Your task to perform on an android device: Open the web browser Image 0: 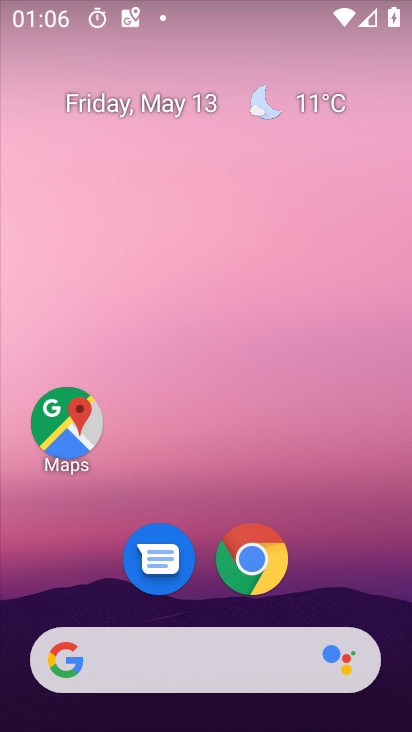
Step 0: drag from (352, 558) to (354, 103)
Your task to perform on an android device: Open the web browser Image 1: 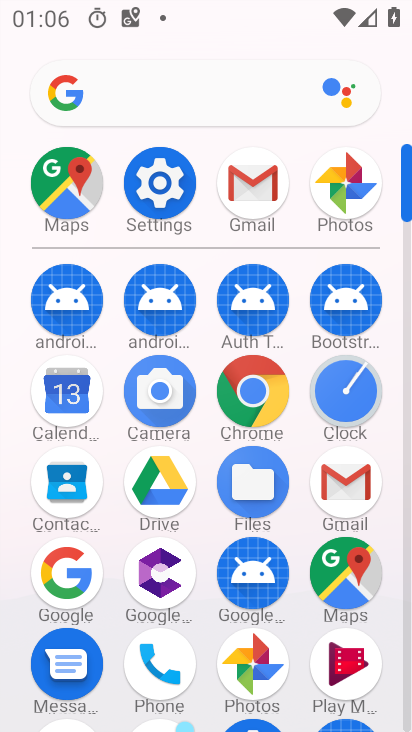
Step 1: click (78, 564)
Your task to perform on an android device: Open the web browser Image 2: 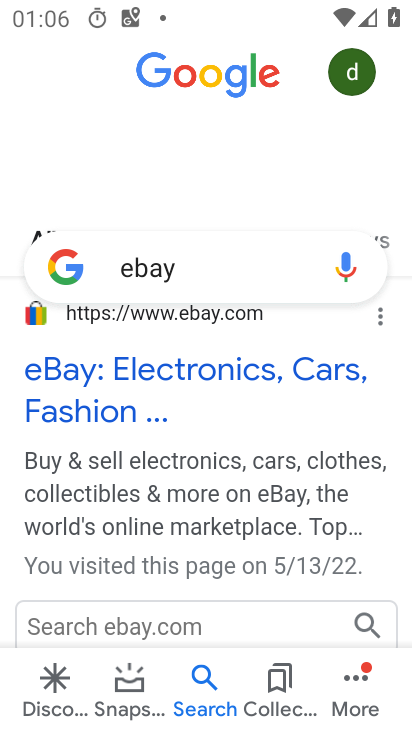
Step 2: task complete